Your task to perform on an android device: Open Chrome and go to settings Image 0: 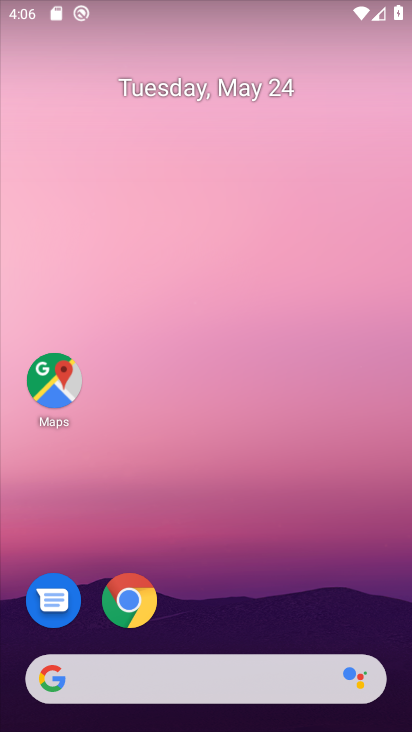
Step 0: drag from (312, 617) to (322, 16)
Your task to perform on an android device: Open Chrome and go to settings Image 1: 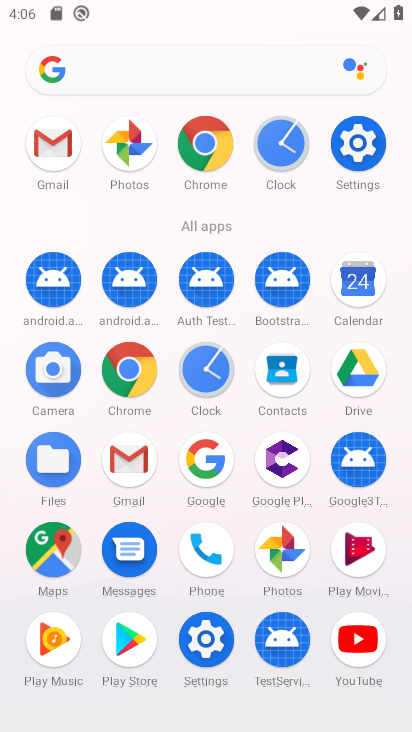
Step 1: click (142, 377)
Your task to perform on an android device: Open Chrome and go to settings Image 2: 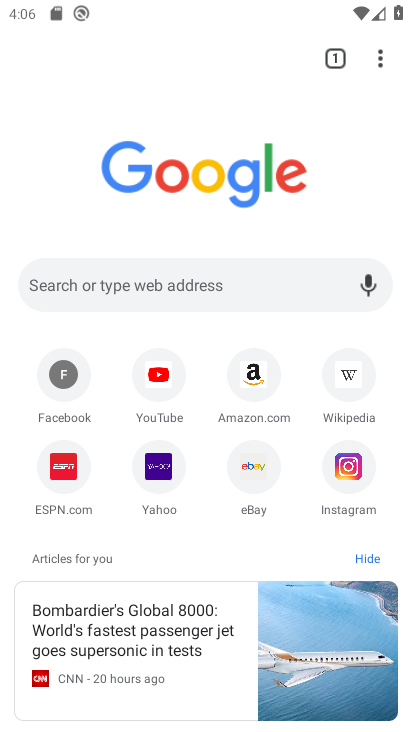
Step 2: task complete